Your task to perform on an android device: clear history in the chrome app Image 0: 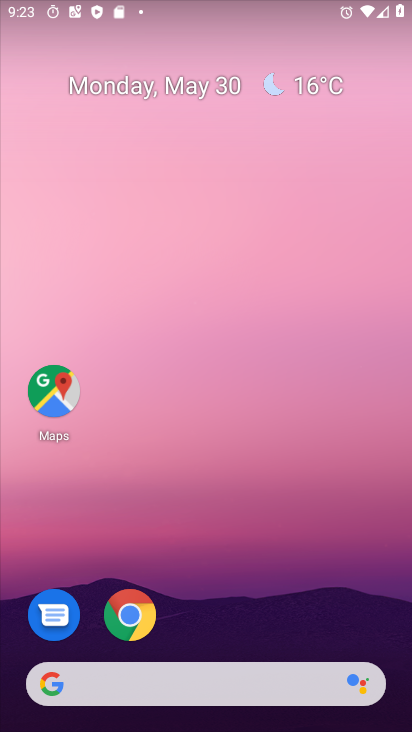
Step 0: drag from (261, 541) to (221, 25)
Your task to perform on an android device: clear history in the chrome app Image 1: 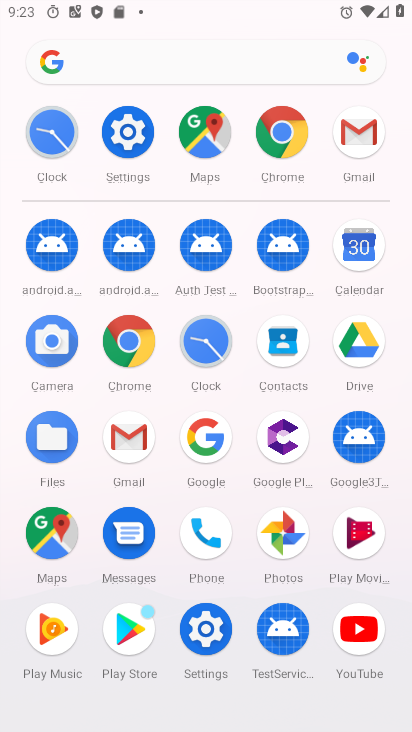
Step 1: click (279, 149)
Your task to perform on an android device: clear history in the chrome app Image 2: 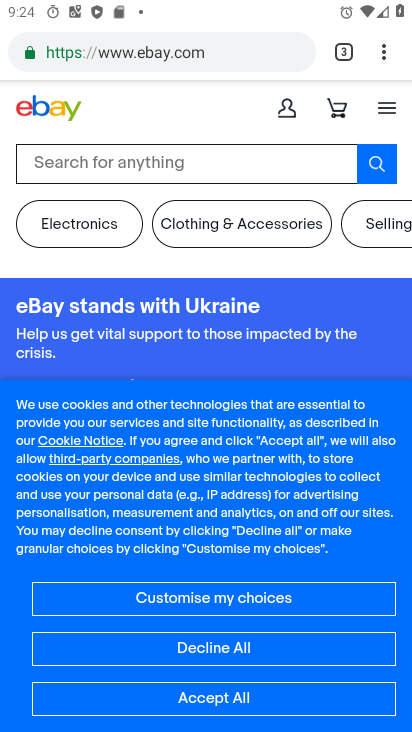
Step 2: drag from (383, 50) to (243, 297)
Your task to perform on an android device: clear history in the chrome app Image 3: 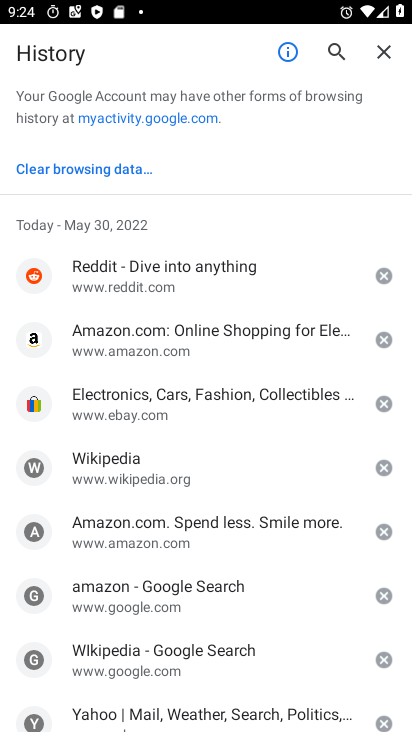
Step 3: click (52, 166)
Your task to perform on an android device: clear history in the chrome app Image 4: 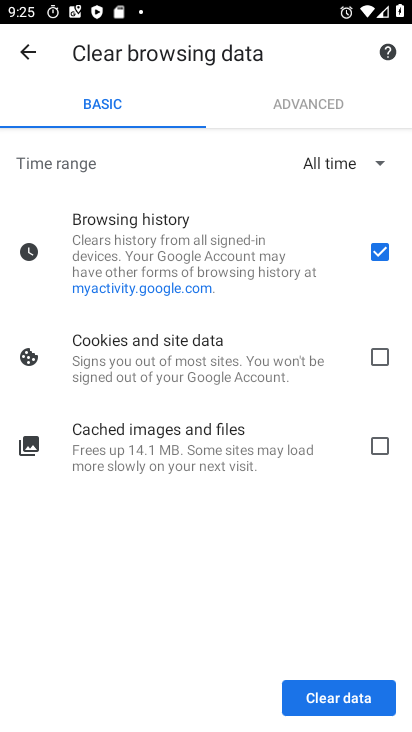
Step 4: click (341, 708)
Your task to perform on an android device: clear history in the chrome app Image 5: 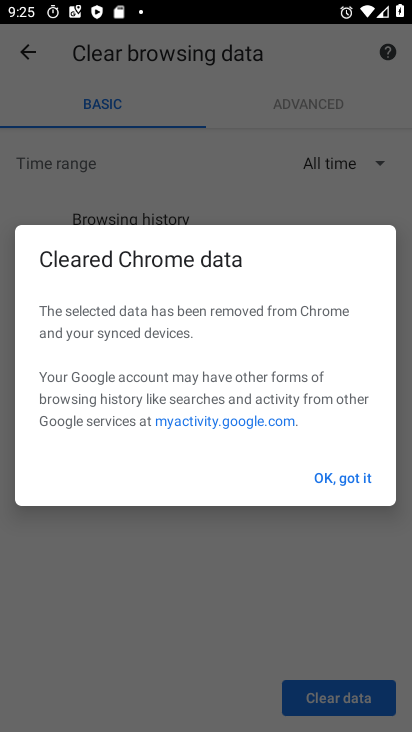
Step 5: click (335, 469)
Your task to perform on an android device: clear history in the chrome app Image 6: 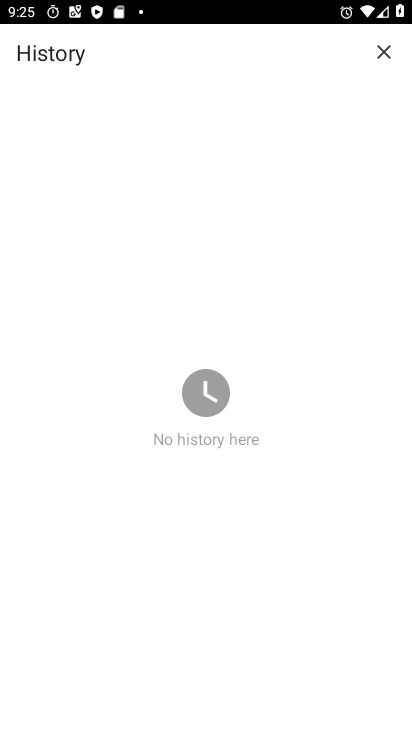
Step 6: task complete